Your task to perform on an android device: Open Youtube and go to the subscriptions tab Image 0: 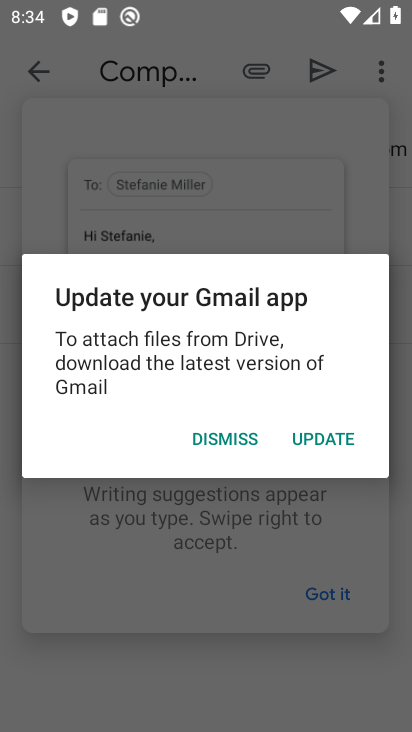
Step 0: press home button
Your task to perform on an android device: Open Youtube and go to the subscriptions tab Image 1: 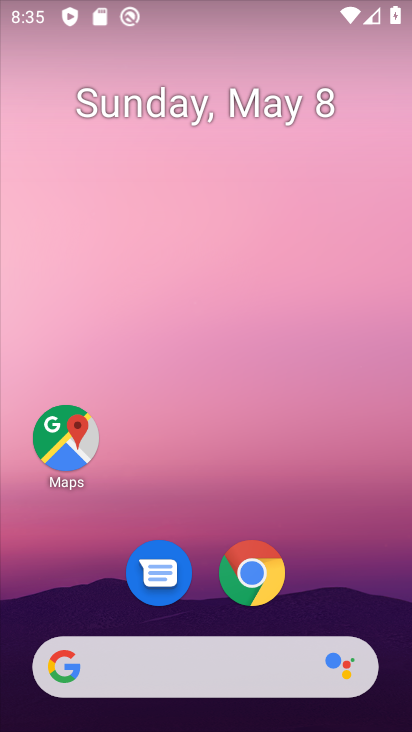
Step 1: drag from (193, 587) to (186, 264)
Your task to perform on an android device: Open Youtube and go to the subscriptions tab Image 2: 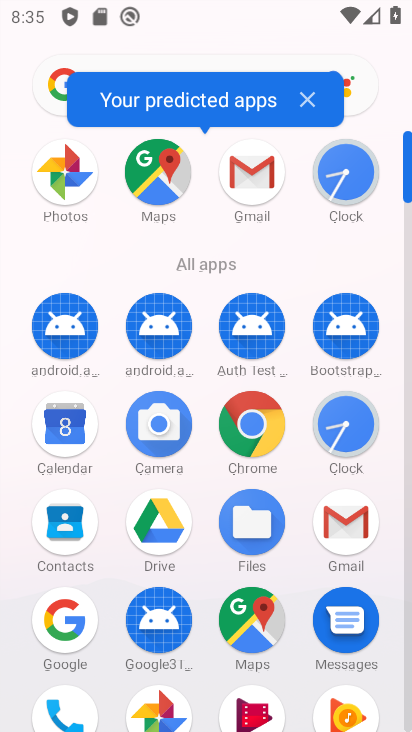
Step 2: drag from (202, 686) to (225, 309)
Your task to perform on an android device: Open Youtube and go to the subscriptions tab Image 3: 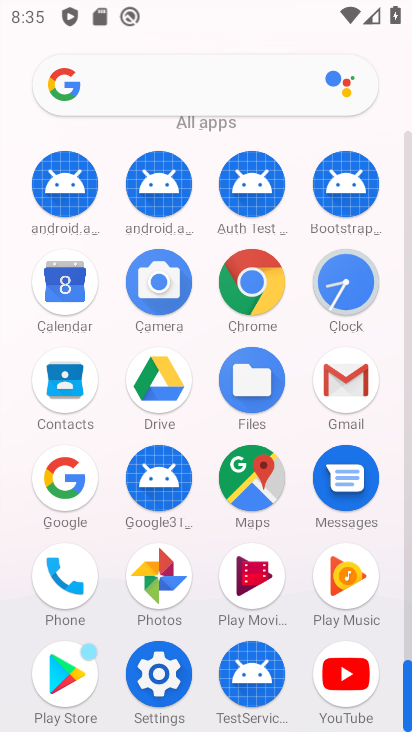
Step 3: click (351, 681)
Your task to perform on an android device: Open Youtube and go to the subscriptions tab Image 4: 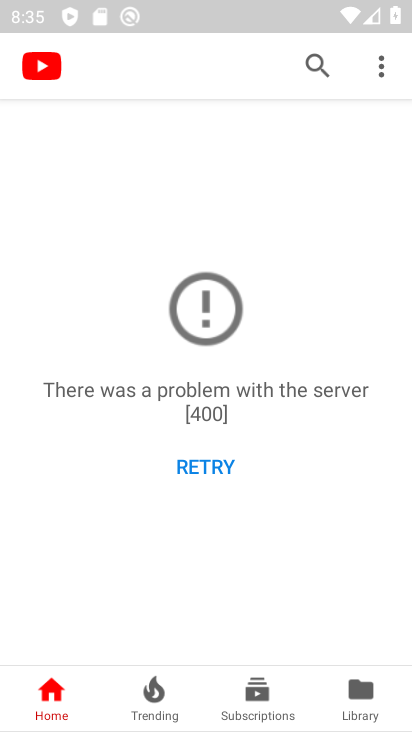
Step 4: click (267, 698)
Your task to perform on an android device: Open Youtube and go to the subscriptions tab Image 5: 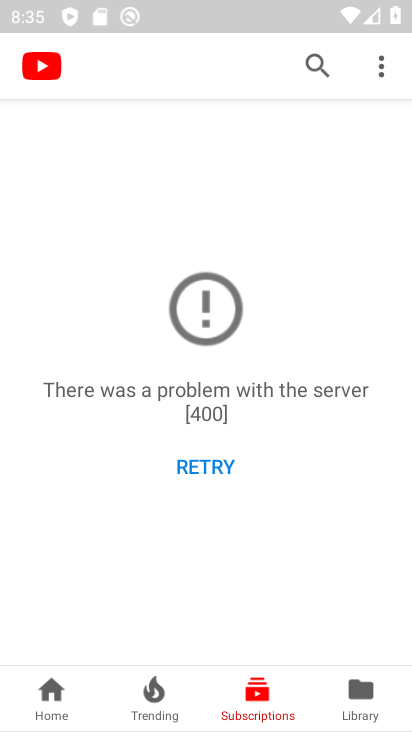
Step 5: task complete